Your task to perform on an android device: Open the web browser Image 0: 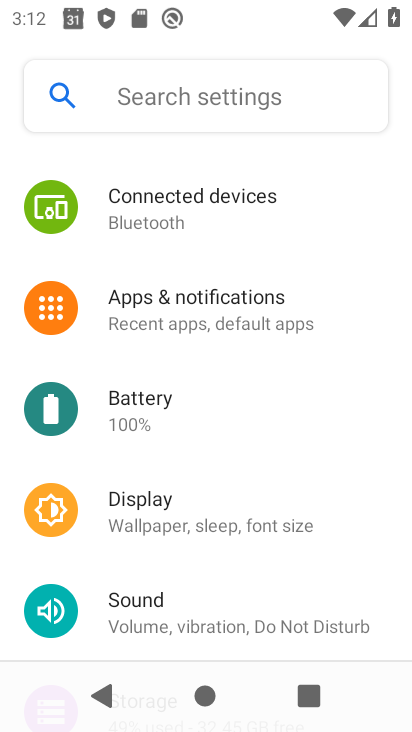
Step 0: press home button
Your task to perform on an android device: Open the web browser Image 1: 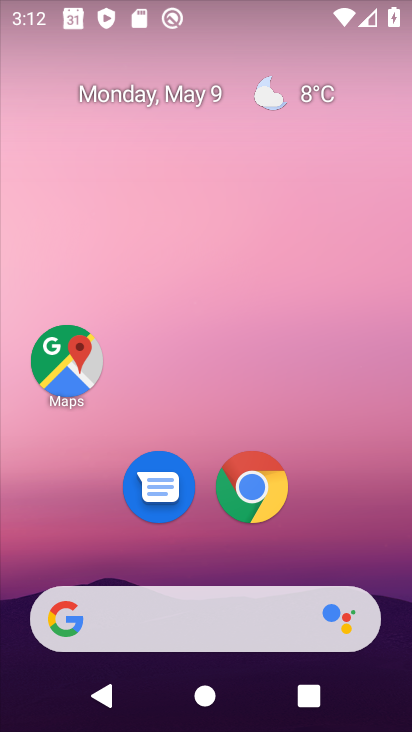
Step 1: drag from (208, 554) to (171, 10)
Your task to perform on an android device: Open the web browser Image 2: 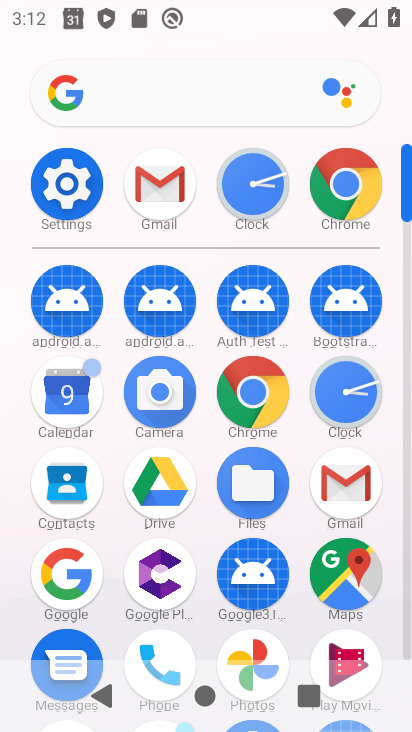
Step 2: click (255, 384)
Your task to perform on an android device: Open the web browser Image 3: 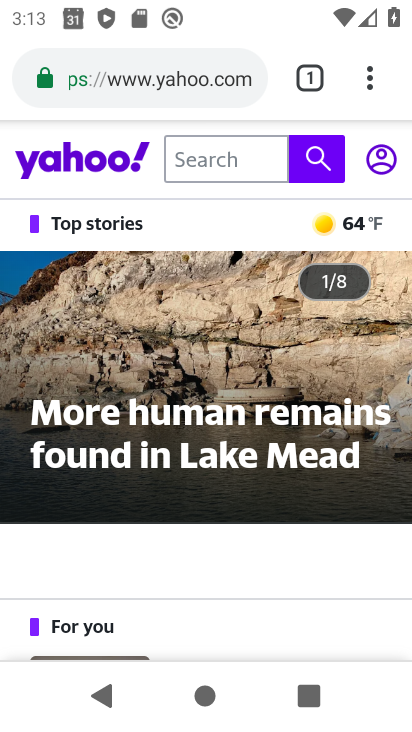
Step 3: task complete